Your task to perform on an android device: What is the news today? Image 0: 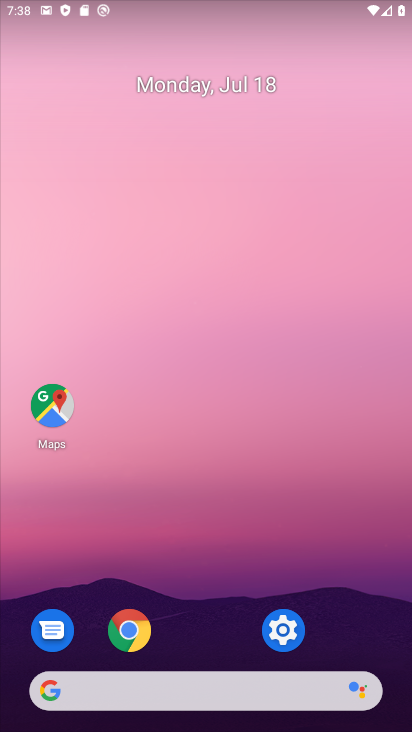
Step 0: press home button
Your task to perform on an android device: What is the news today? Image 1: 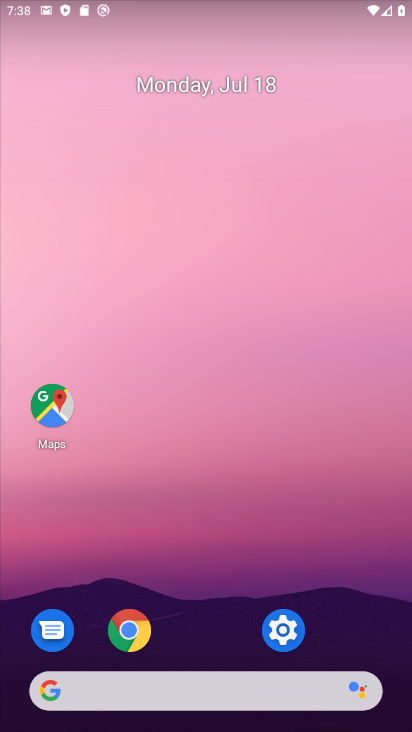
Step 1: click (187, 676)
Your task to perform on an android device: What is the news today? Image 2: 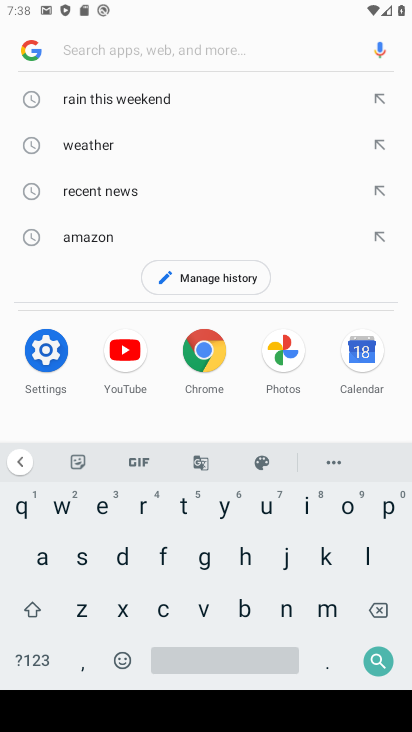
Step 2: click (288, 611)
Your task to perform on an android device: What is the news today? Image 3: 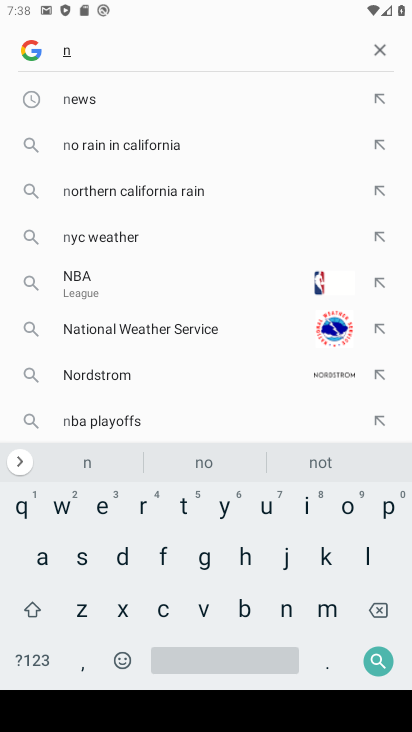
Step 3: click (98, 508)
Your task to perform on an android device: What is the news today? Image 4: 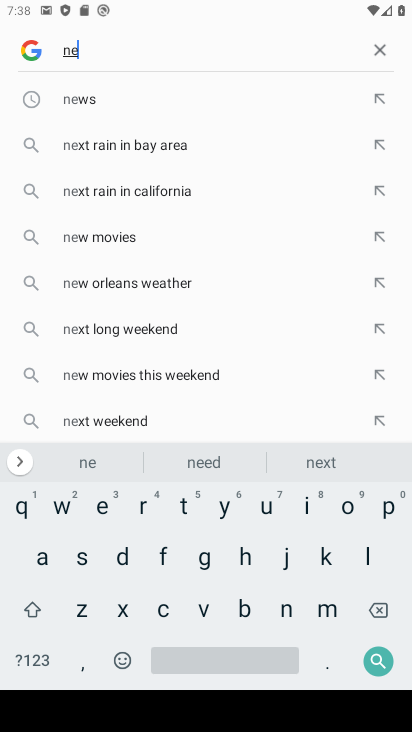
Step 4: click (61, 506)
Your task to perform on an android device: What is the news today? Image 5: 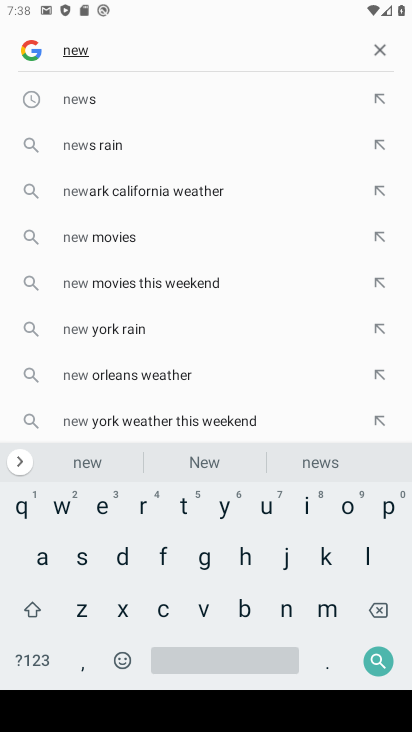
Step 5: click (82, 555)
Your task to perform on an android device: What is the news today? Image 6: 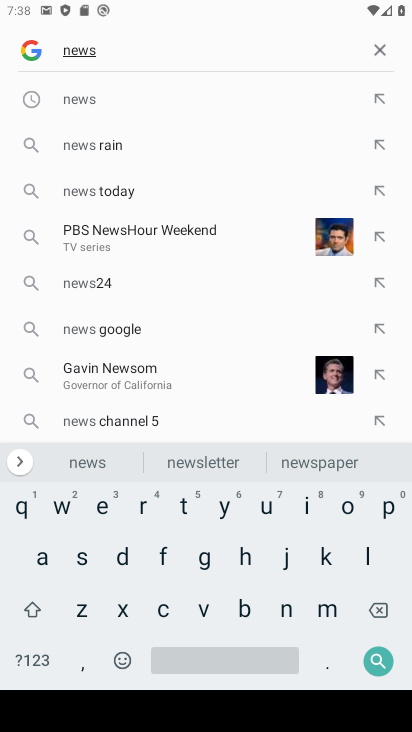
Step 6: click (194, 649)
Your task to perform on an android device: What is the news today? Image 7: 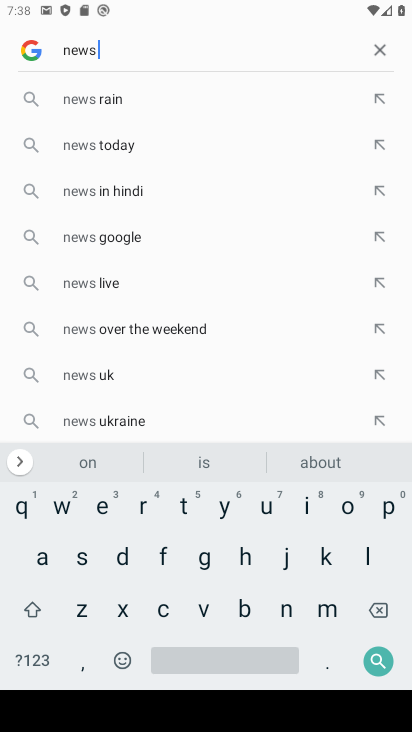
Step 7: click (183, 502)
Your task to perform on an android device: What is the news today? Image 8: 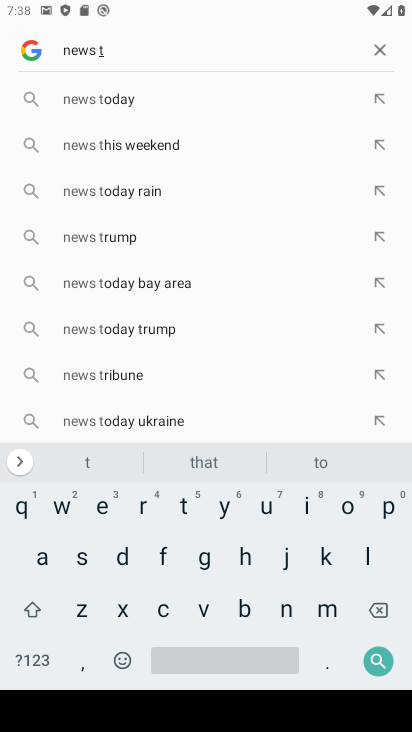
Step 8: click (117, 104)
Your task to perform on an android device: What is the news today? Image 9: 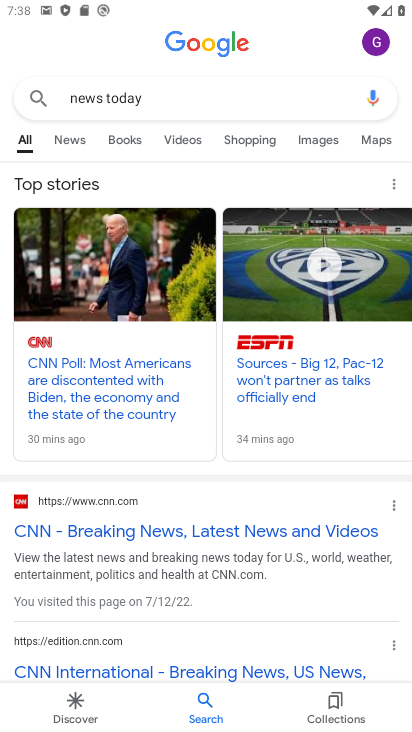
Step 9: task complete